Your task to perform on an android device: Go to internet settings Image 0: 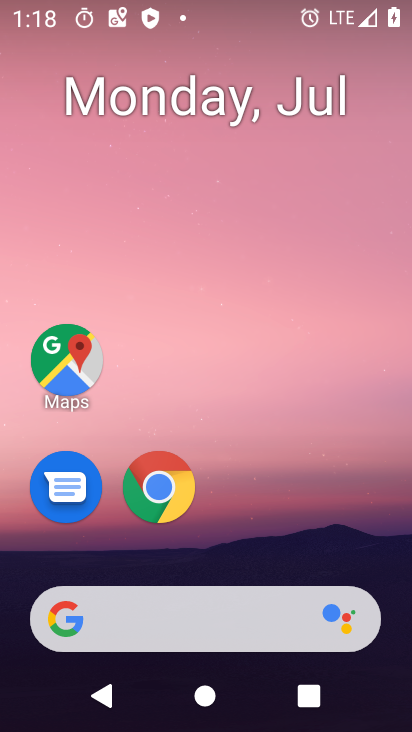
Step 0: drag from (305, 489) to (309, 3)
Your task to perform on an android device: Go to internet settings Image 1: 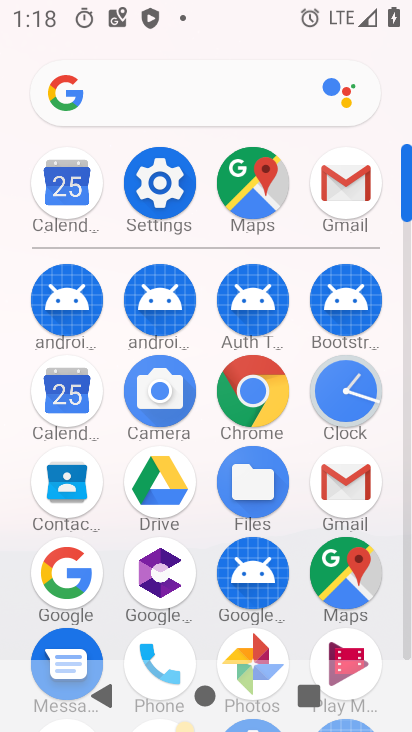
Step 1: click (173, 171)
Your task to perform on an android device: Go to internet settings Image 2: 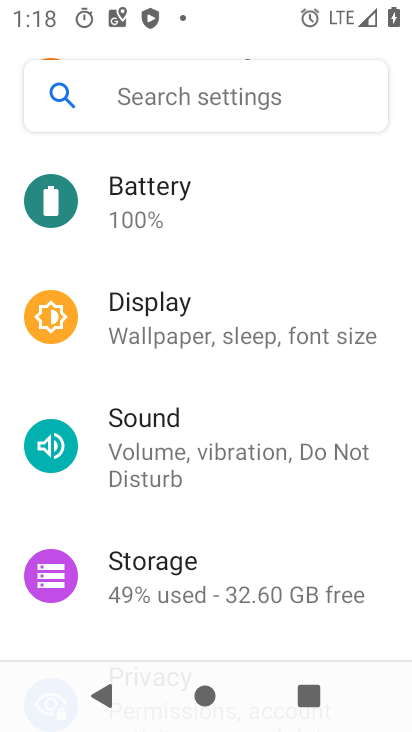
Step 2: drag from (162, 152) to (136, 473)
Your task to perform on an android device: Go to internet settings Image 3: 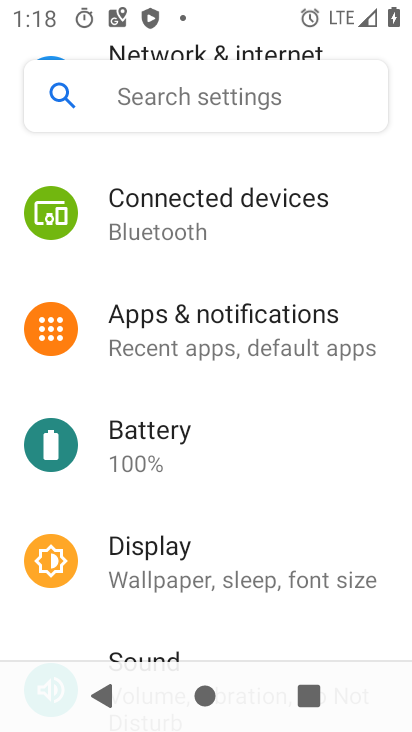
Step 3: drag from (168, 156) to (170, 420)
Your task to perform on an android device: Go to internet settings Image 4: 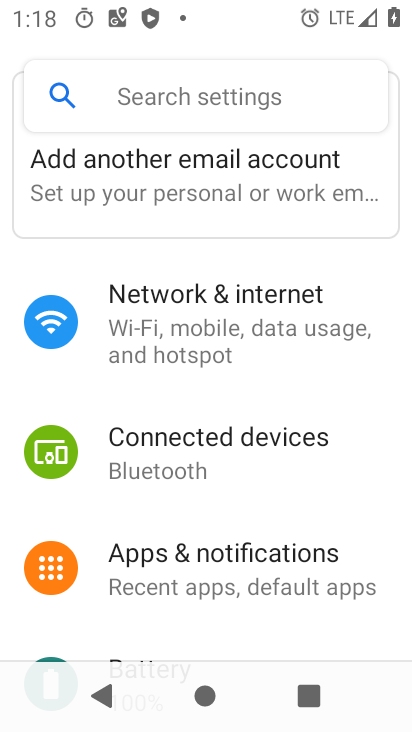
Step 4: click (186, 303)
Your task to perform on an android device: Go to internet settings Image 5: 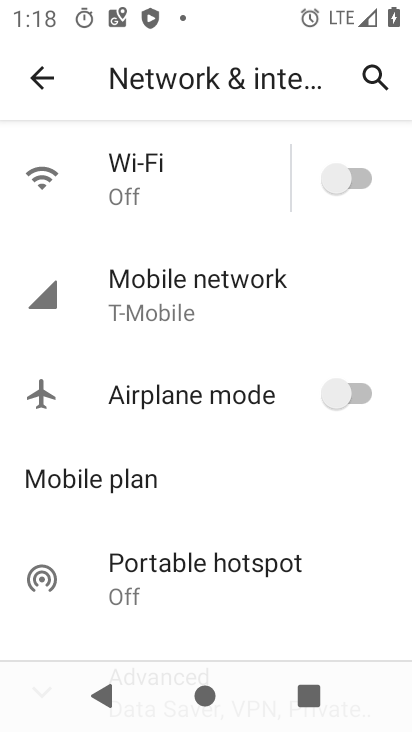
Step 5: task complete